Your task to perform on an android device: Open display settings Image 0: 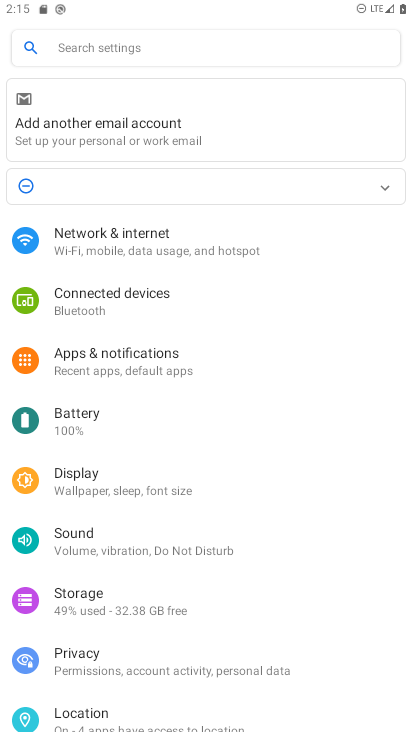
Step 0: click (96, 475)
Your task to perform on an android device: Open display settings Image 1: 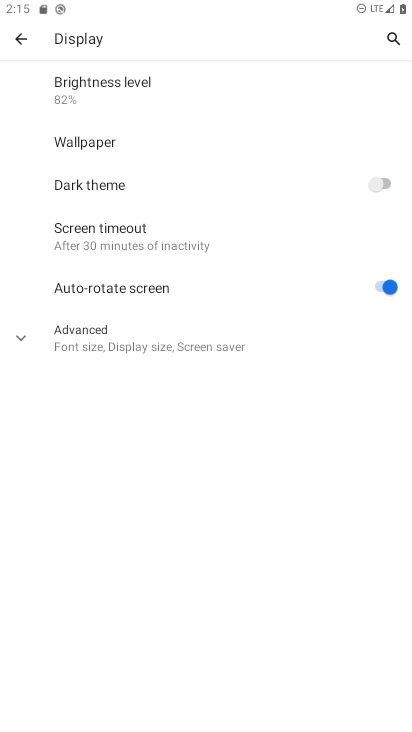
Step 1: task complete